Your task to perform on an android device: Open battery settings Image 0: 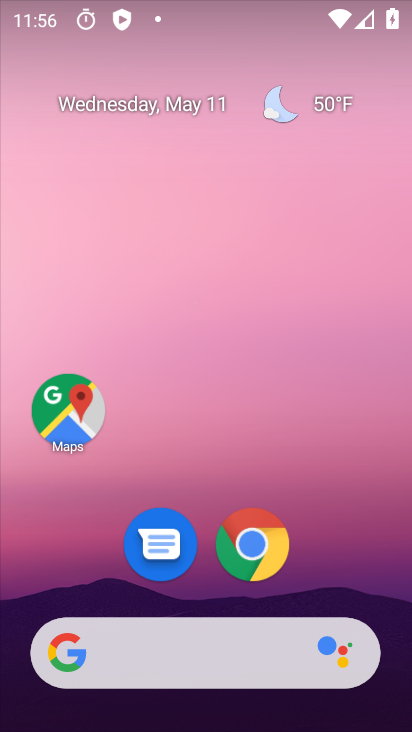
Step 0: drag from (185, 661) to (170, 101)
Your task to perform on an android device: Open battery settings Image 1: 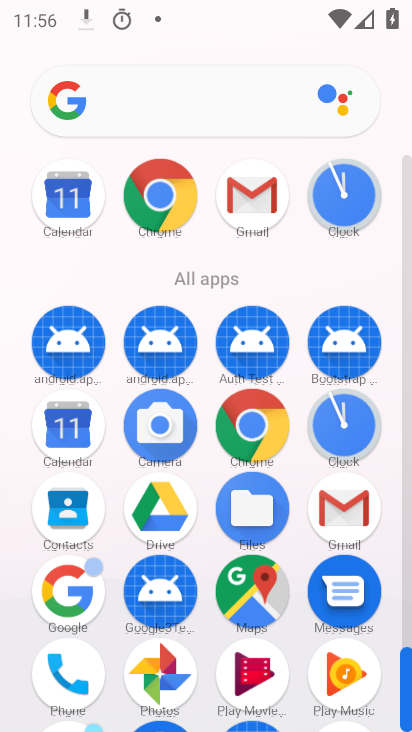
Step 1: drag from (225, 618) to (207, 258)
Your task to perform on an android device: Open battery settings Image 2: 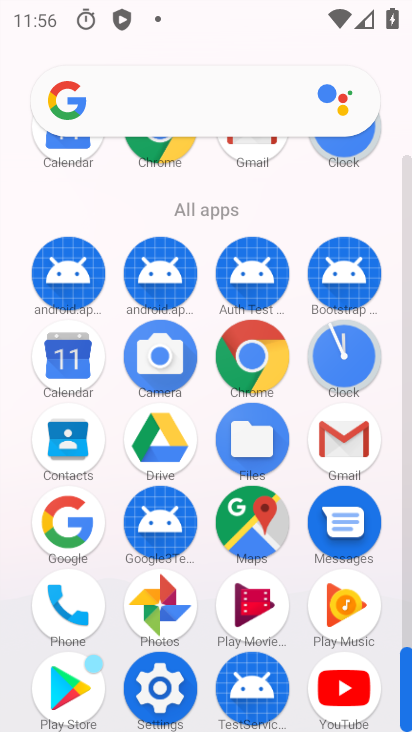
Step 2: click (161, 692)
Your task to perform on an android device: Open battery settings Image 3: 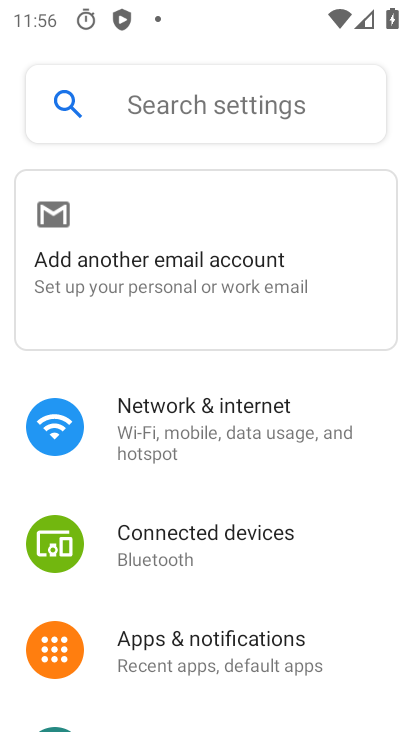
Step 3: drag from (196, 577) to (201, 25)
Your task to perform on an android device: Open battery settings Image 4: 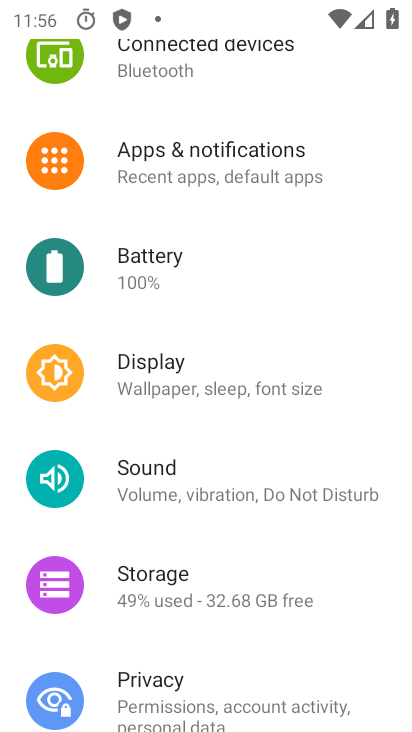
Step 4: click (138, 286)
Your task to perform on an android device: Open battery settings Image 5: 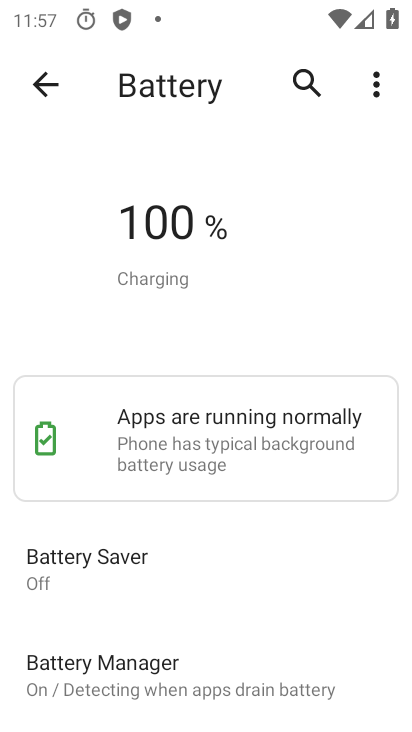
Step 5: task complete